Your task to perform on an android device: Show me the alarms in the clock app Image 0: 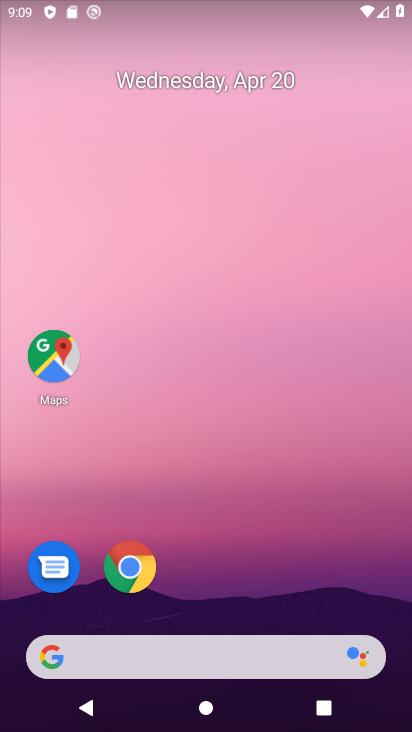
Step 0: drag from (262, 595) to (245, 220)
Your task to perform on an android device: Show me the alarms in the clock app Image 1: 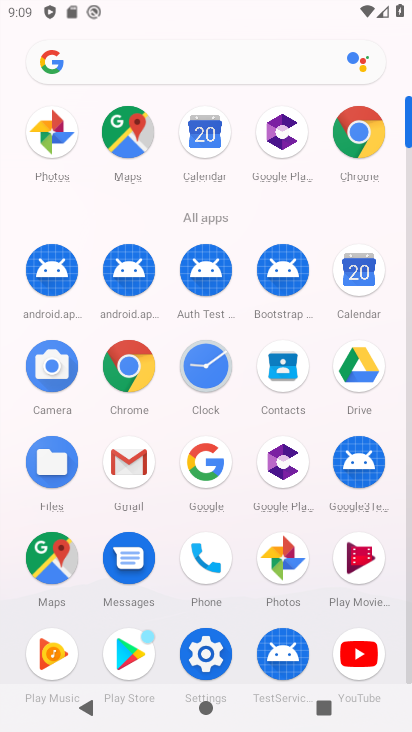
Step 1: click (203, 364)
Your task to perform on an android device: Show me the alarms in the clock app Image 2: 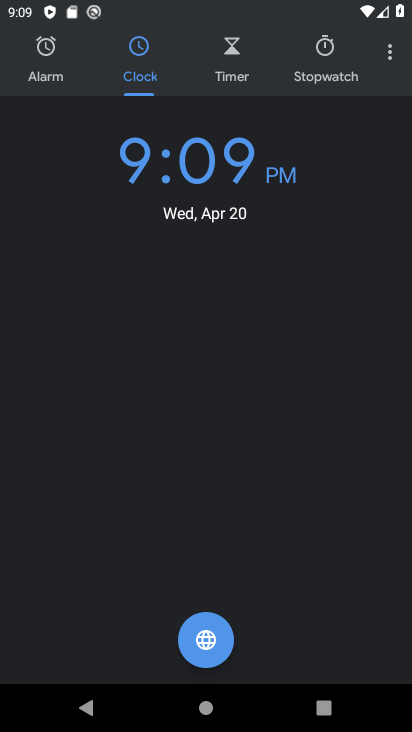
Step 2: click (49, 65)
Your task to perform on an android device: Show me the alarms in the clock app Image 3: 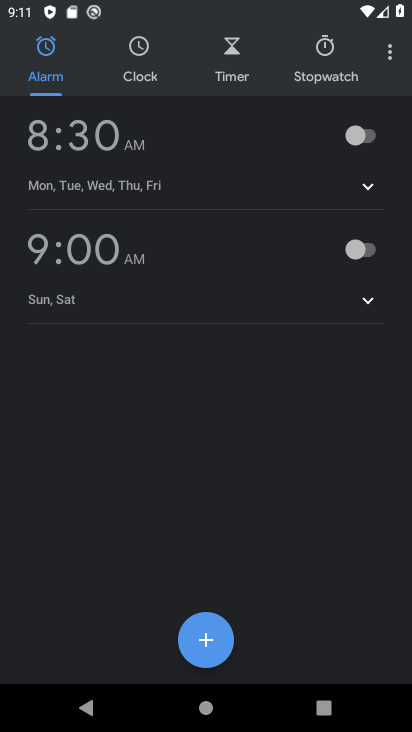
Step 3: task complete